Your task to perform on an android device: Open the Play Movies app and select the watchlist tab. Image 0: 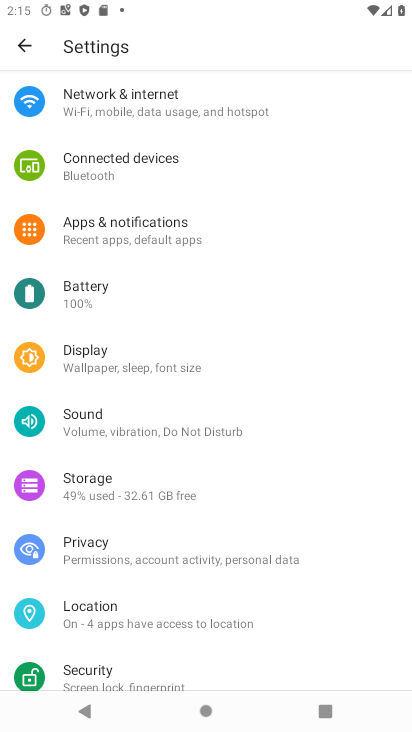
Step 0: press home button
Your task to perform on an android device: Open the Play Movies app and select the watchlist tab. Image 1: 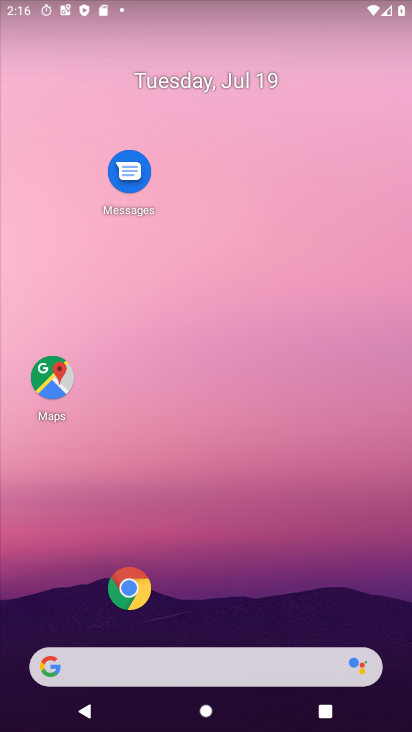
Step 1: task complete